Your task to perform on an android device: Go to Reddit.com Image 0: 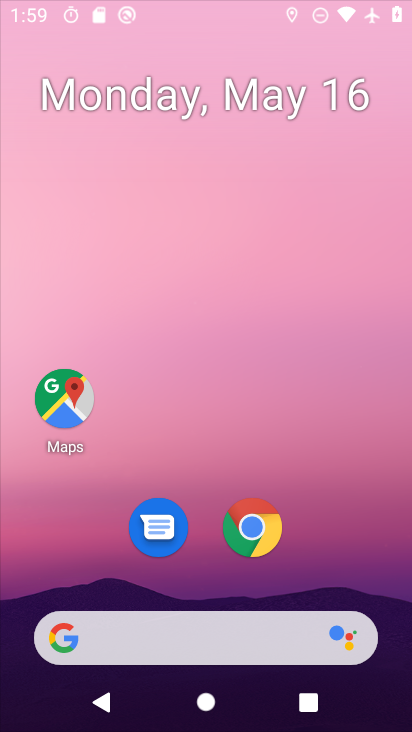
Step 0: press home button
Your task to perform on an android device: Go to Reddit.com Image 1: 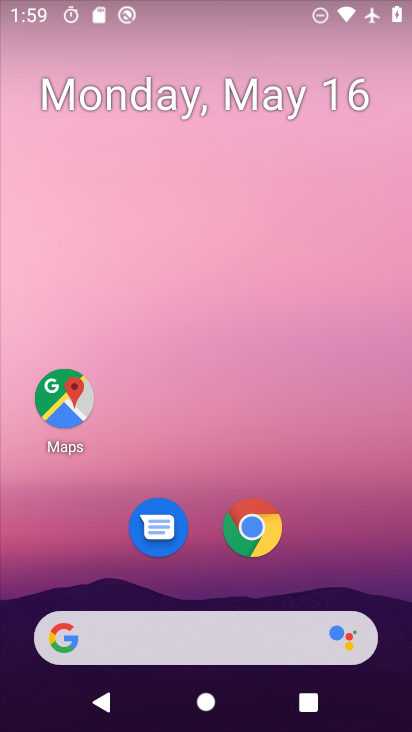
Step 1: drag from (196, 630) to (317, 247)
Your task to perform on an android device: Go to Reddit.com Image 2: 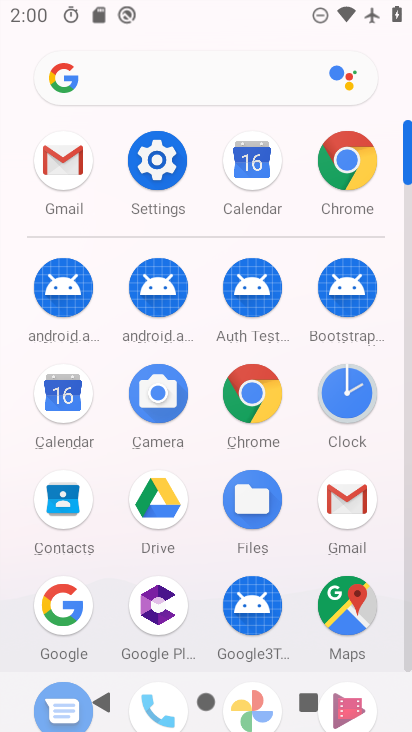
Step 2: click (360, 169)
Your task to perform on an android device: Go to Reddit.com Image 3: 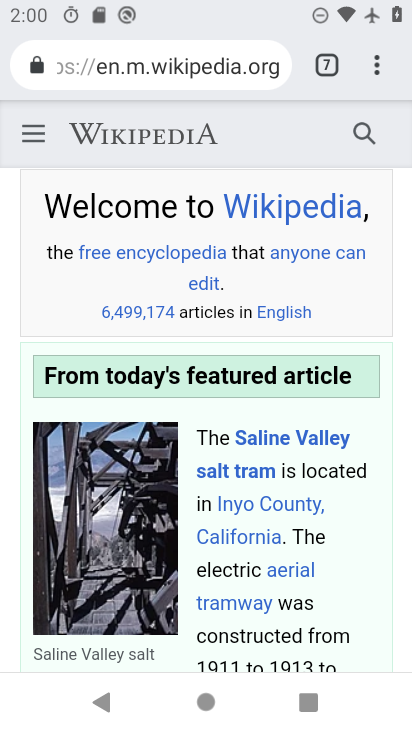
Step 3: drag from (375, 68) to (205, 135)
Your task to perform on an android device: Go to Reddit.com Image 4: 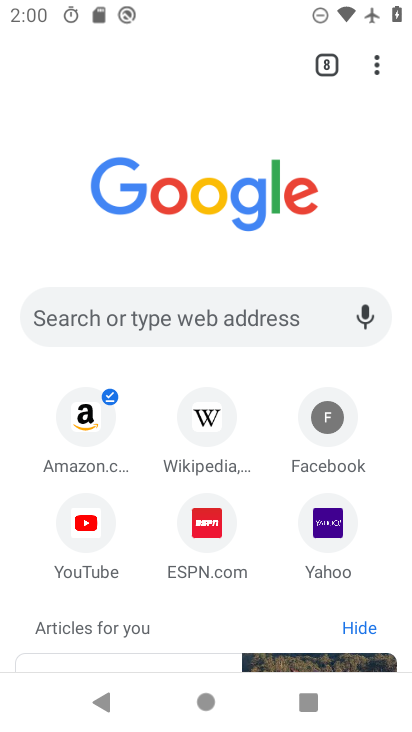
Step 4: click (67, 309)
Your task to perform on an android device: Go to Reddit.com Image 5: 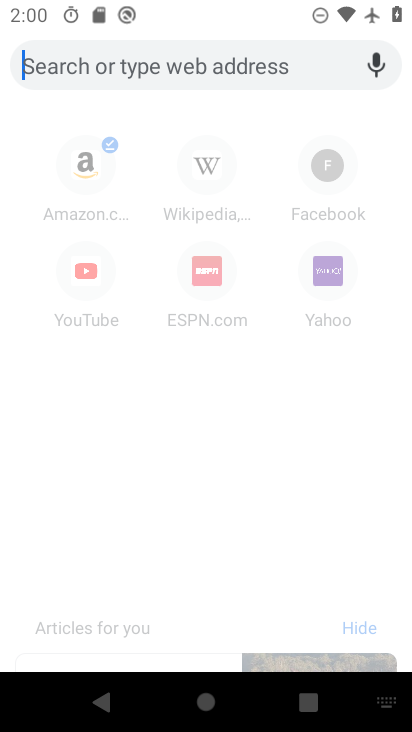
Step 5: type "reddit.com"
Your task to perform on an android device: Go to Reddit.com Image 6: 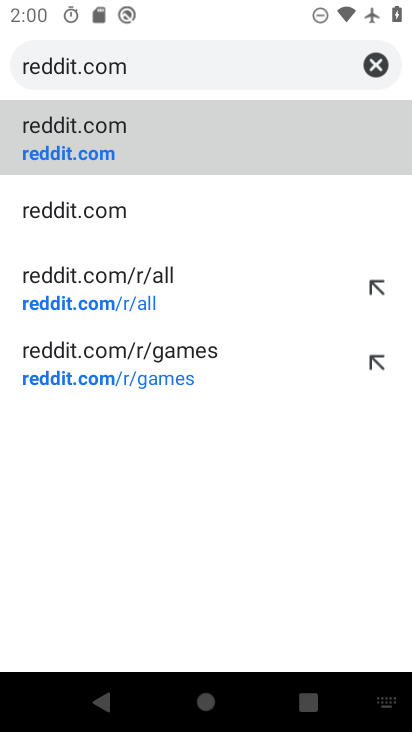
Step 6: click (95, 138)
Your task to perform on an android device: Go to Reddit.com Image 7: 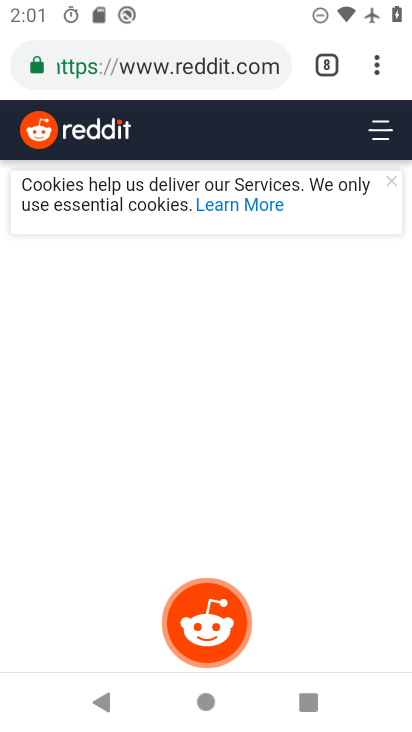
Step 7: task complete